Your task to perform on an android device: What is the speed of a plane? Image 0: 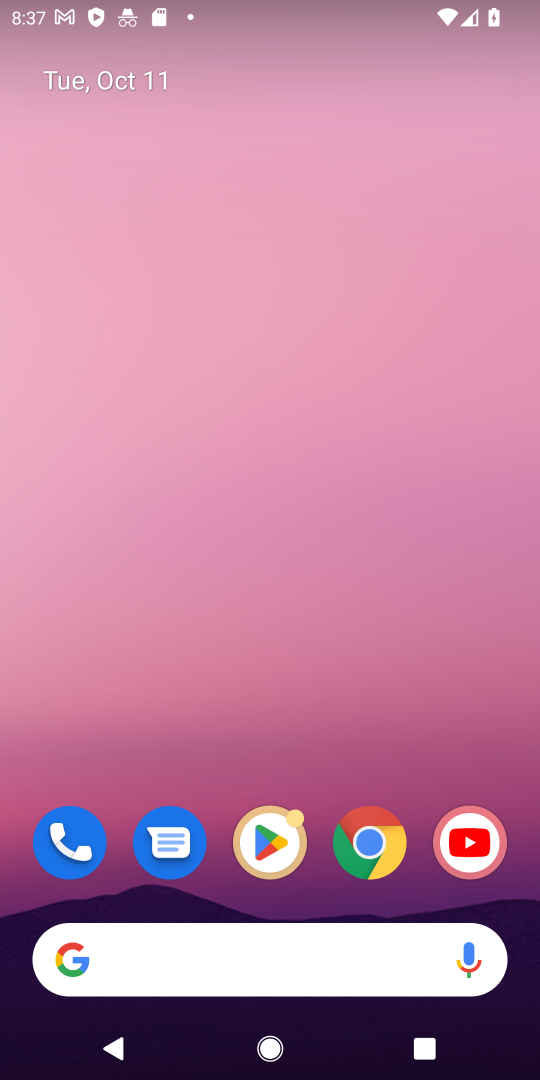
Step 0: click (252, 948)
Your task to perform on an android device: What is the speed of a plane? Image 1: 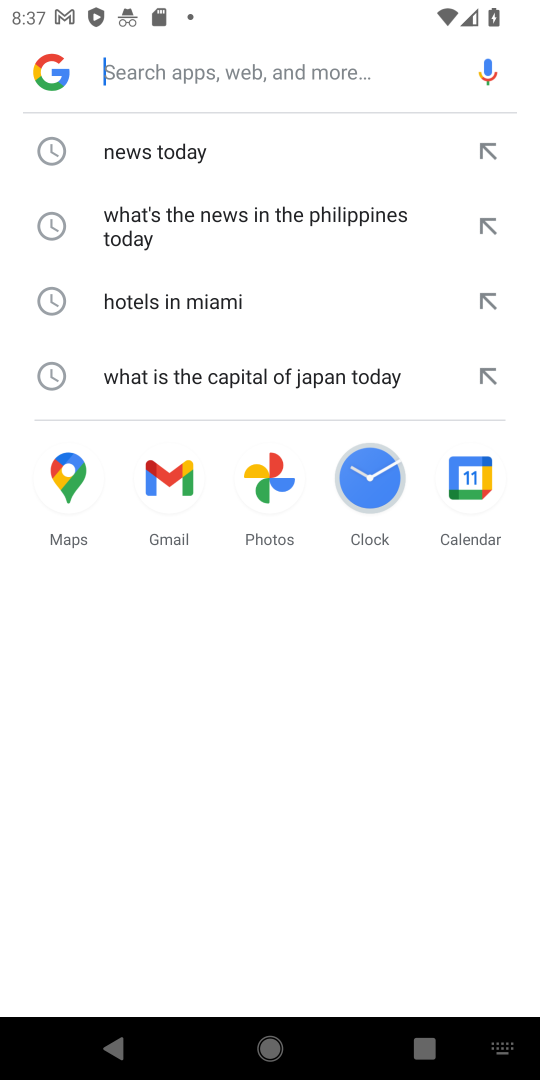
Step 1: type "What is the speed of a plane?"
Your task to perform on an android device: What is the speed of a plane? Image 2: 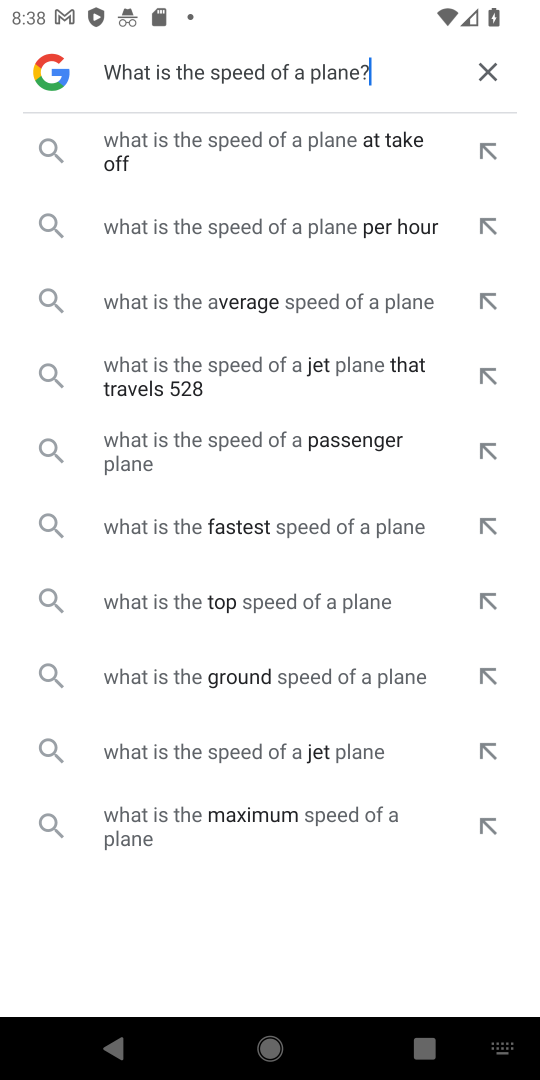
Step 2: click (312, 299)
Your task to perform on an android device: What is the speed of a plane? Image 3: 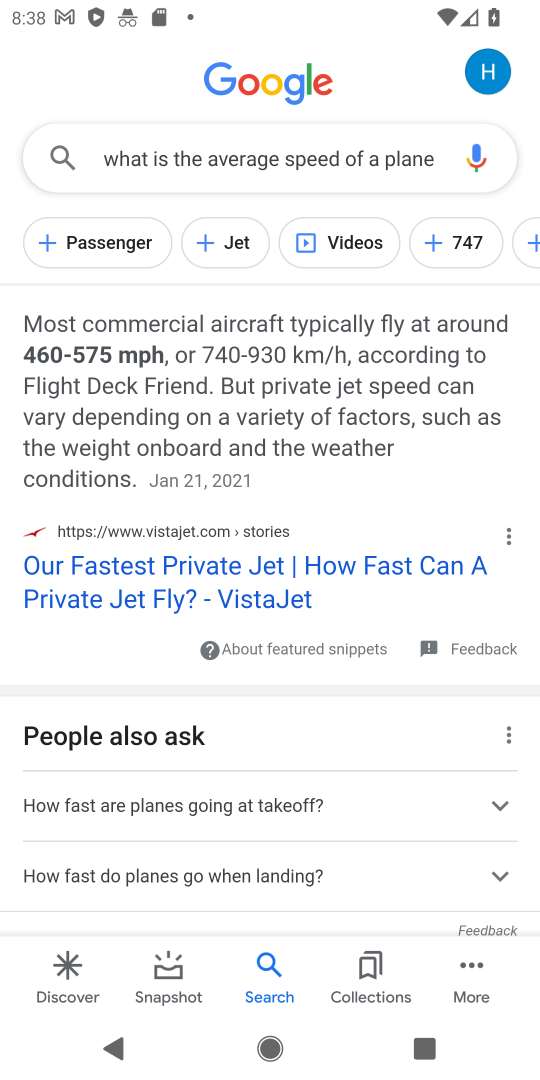
Step 3: task complete